Your task to perform on an android device: Open Chrome and go to the settings page Image 0: 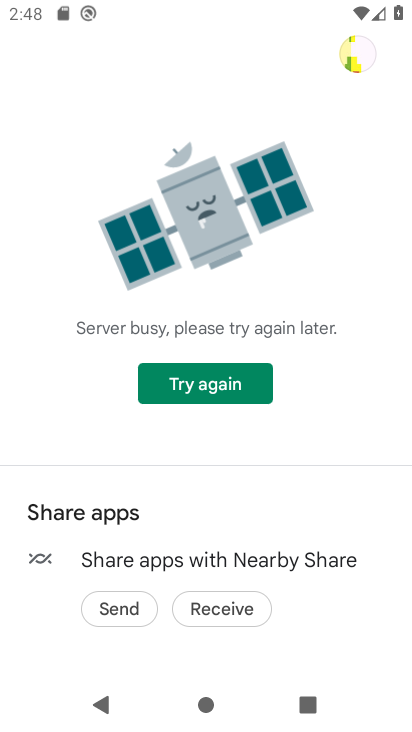
Step 0: press home button
Your task to perform on an android device: Open Chrome and go to the settings page Image 1: 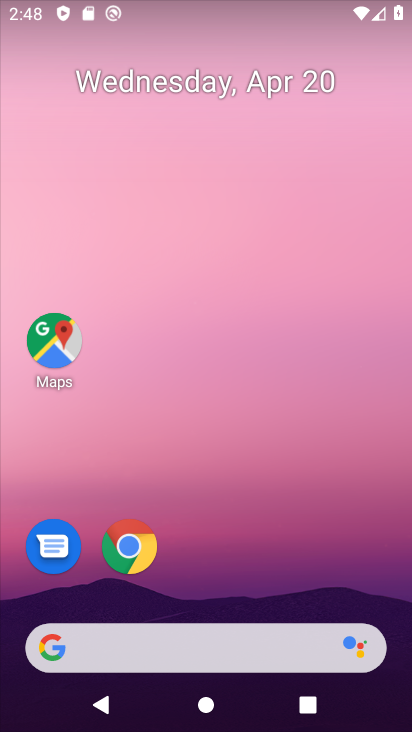
Step 1: click (141, 566)
Your task to perform on an android device: Open Chrome and go to the settings page Image 2: 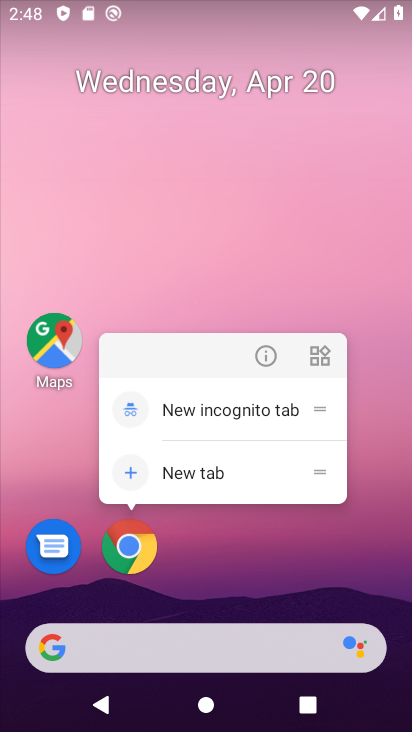
Step 2: click (119, 559)
Your task to perform on an android device: Open Chrome and go to the settings page Image 3: 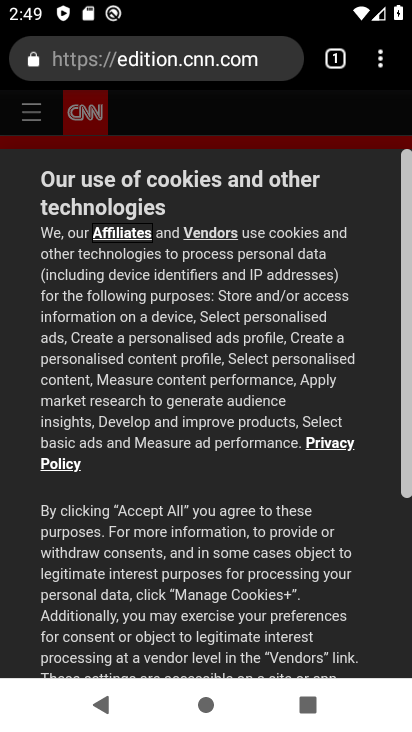
Step 3: click (377, 63)
Your task to perform on an android device: Open Chrome and go to the settings page Image 4: 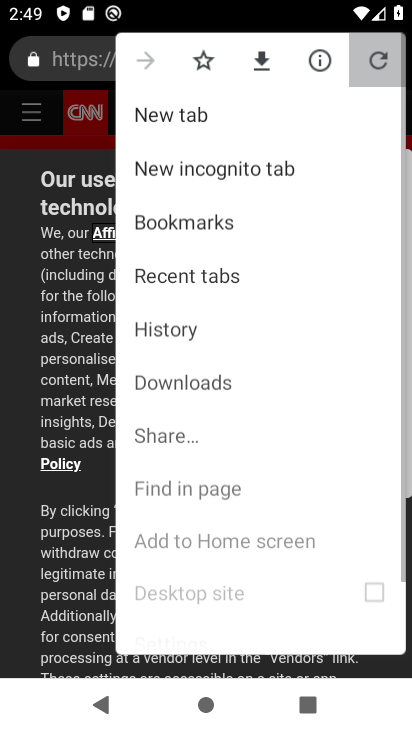
Step 4: task complete